Your task to perform on an android device: What's the weather going to be this weekend? Image 0: 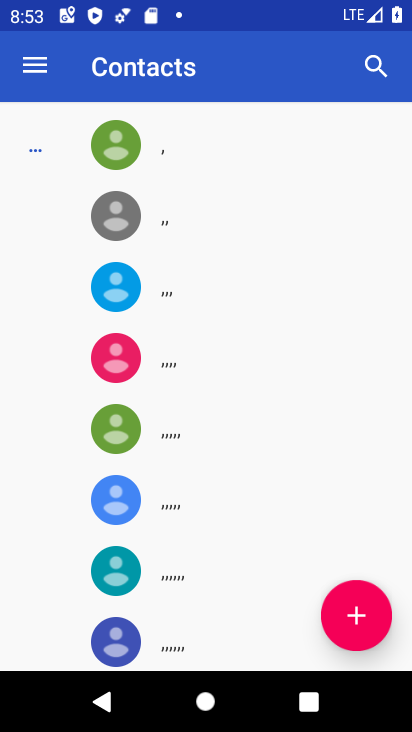
Step 0: press home button
Your task to perform on an android device: What's the weather going to be this weekend? Image 1: 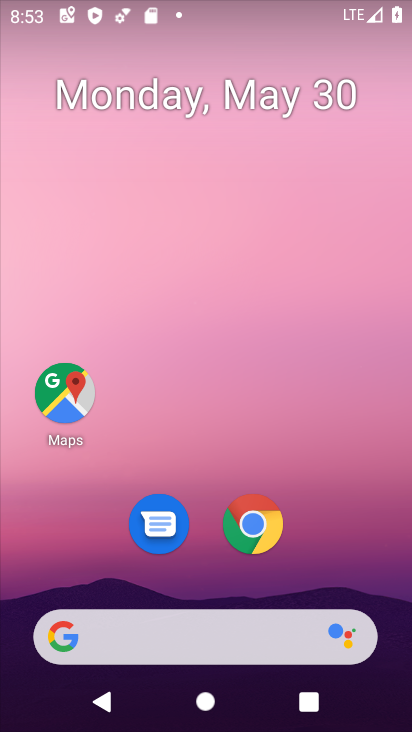
Step 1: click (205, 634)
Your task to perform on an android device: What's the weather going to be this weekend? Image 2: 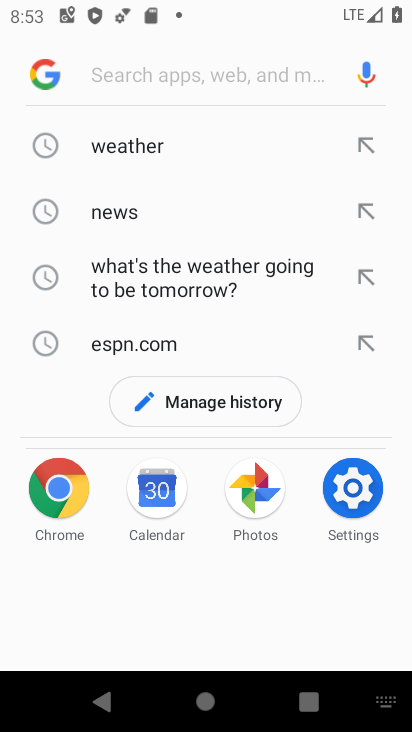
Step 2: click (140, 147)
Your task to perform on an android device: What's the weather going to be this weekend? Image 3: 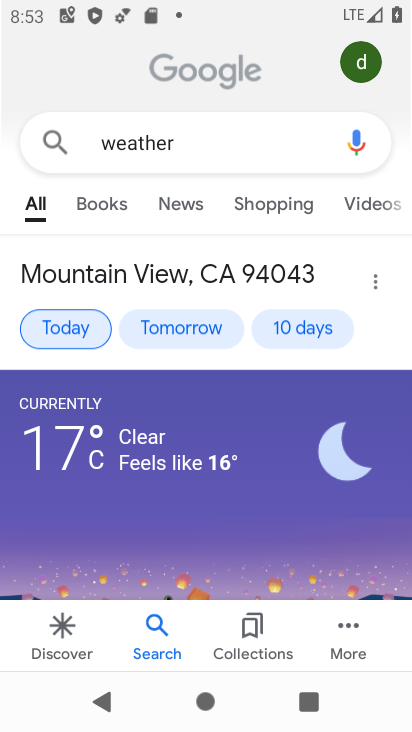
Step 3: click (86, 326)
Your task to perform on an android device: What's the weather going to be this weekend? Image 4: 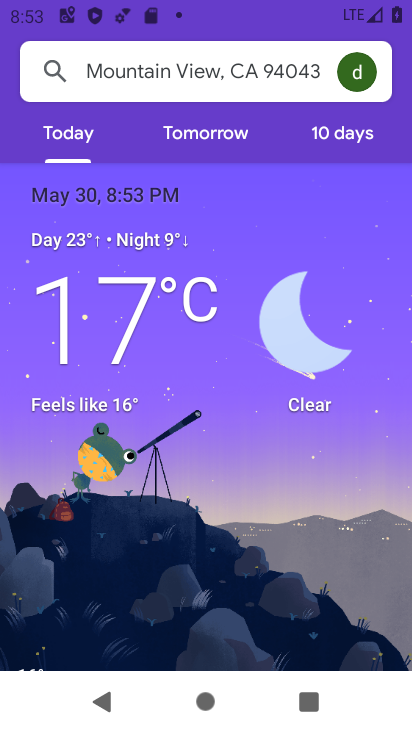
Step 4: click (361, 136)
Your task to perform on an android device: What's the weather going to be this weekend? Image 5: 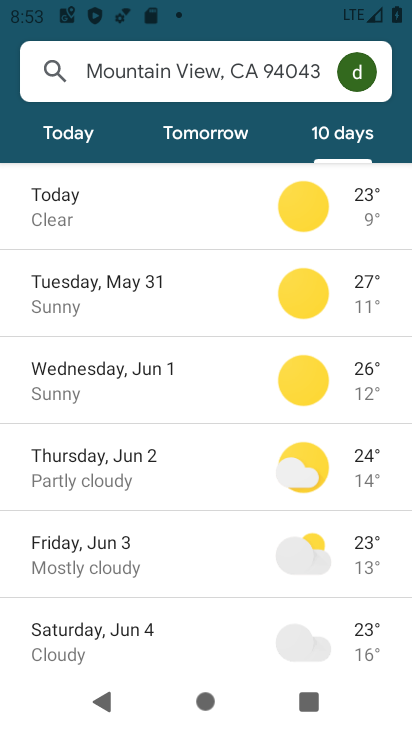
Step 5: click (147, 636)
Your task to perform on an android device: What's the weather going to be this weekend? Image 6: 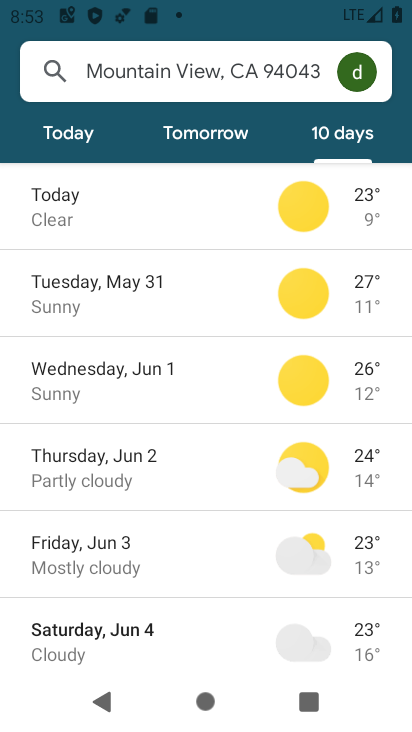
Step 6: task complete